Your task to perform on an android device: Go to network settings Image 0: 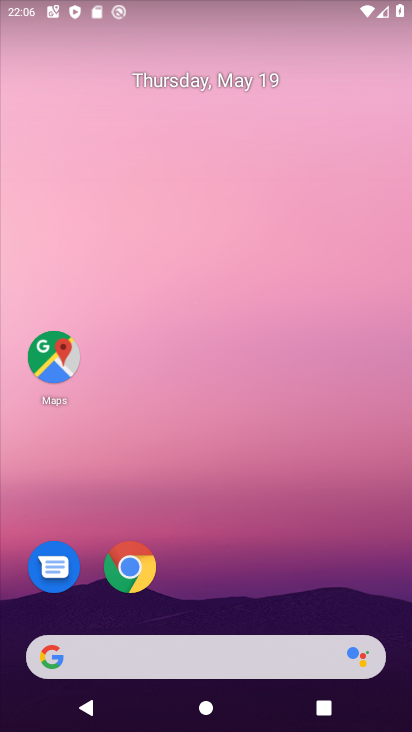
Step 0: drag from (221, 607) to (221, 116)
Your task to perform on an android device: Go to network settings Image 1: 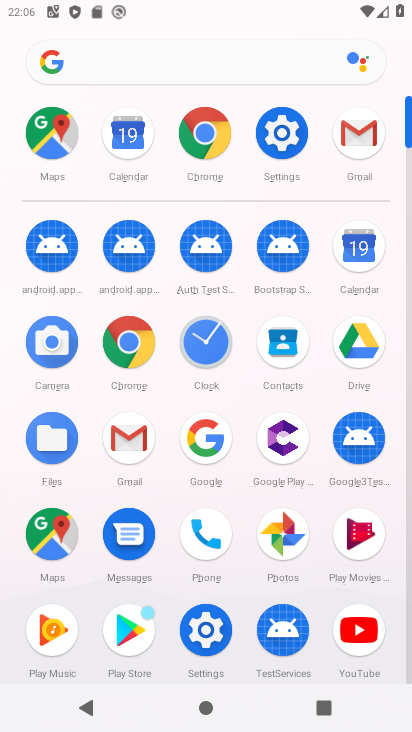
Step 1: click (283, 128)
Your task to perform on an android device: Go to network settings Image 2: 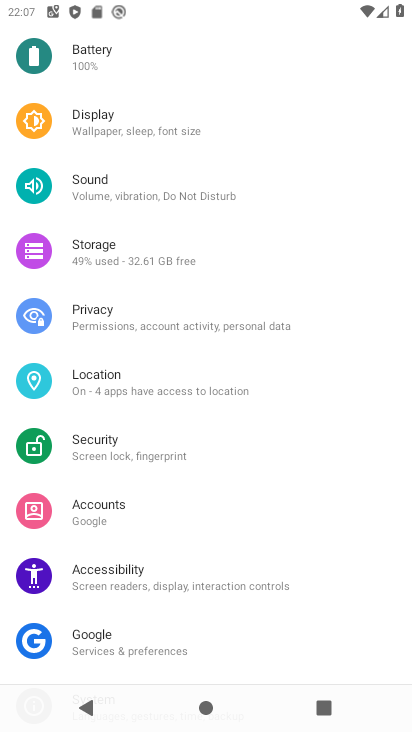
Step 2: drag from (159, 116) to (156, 586)
Your task to perform on an android device: Go to network settings Image 3: 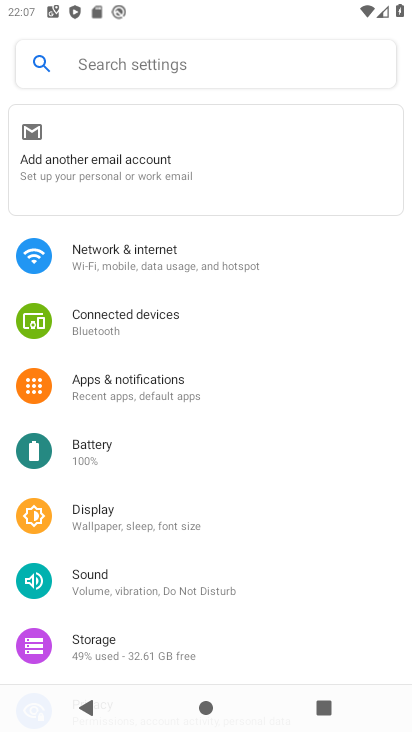
Step 3: click (191, 247)
Your task to perform on an android device: Go to network settings Image 4: 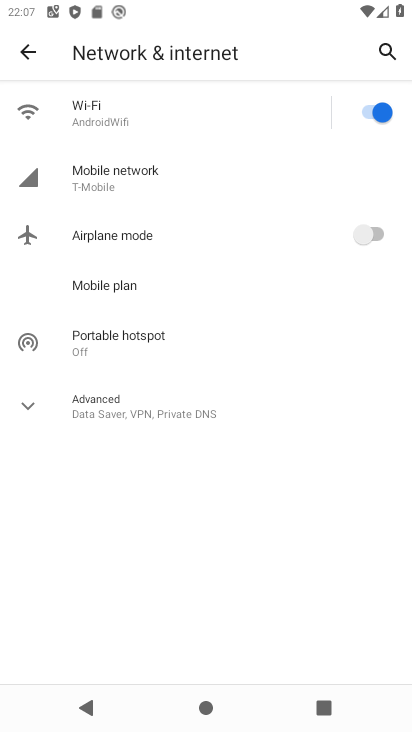
Step 4: click (27, 399)
Your task to perform on an android device: Go to network settings Image 5: 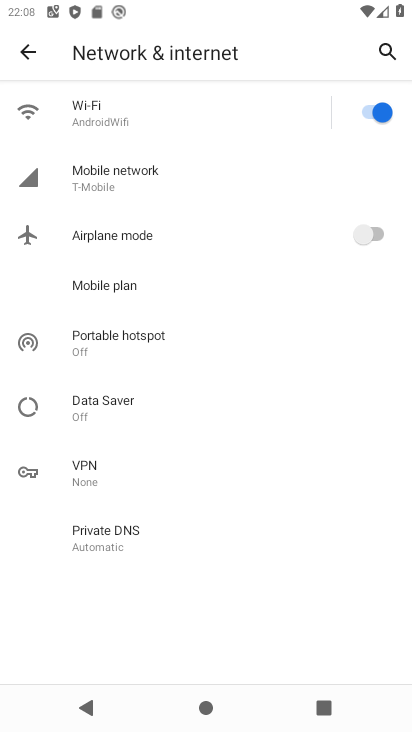
Step 5: task complete